Your task to perform on an android device: Search for sushi restaurants on Maps Image 0: 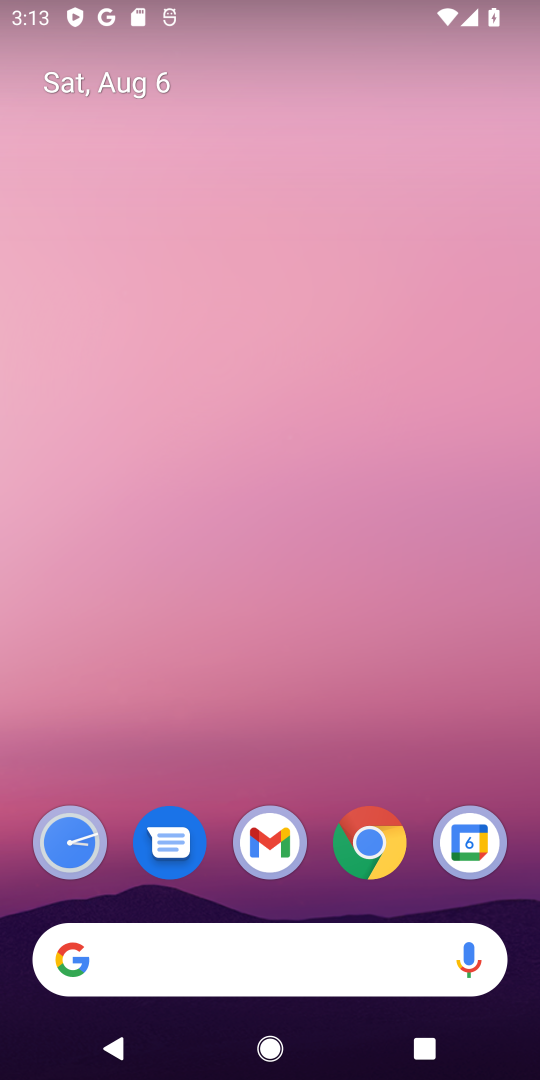
Step 0: drag from (516, 1032) to (449, 297)
Your task to perform on an android device: Search for sushi restaurants on Maps Image 1: 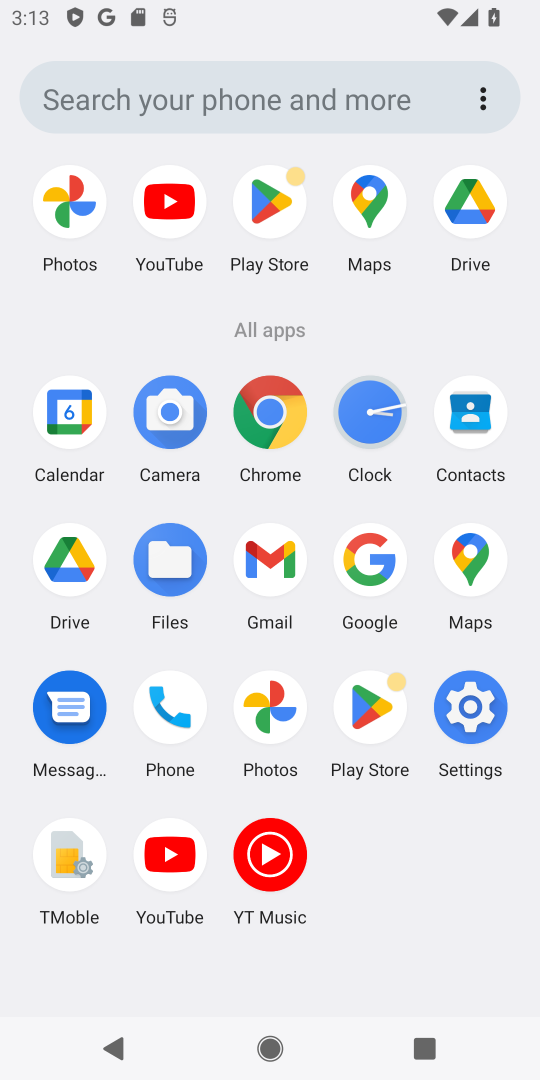
Step 1: click (367, 219)
Your task to perform on an android device: Search for sushi restaurants on Maps Image 2: 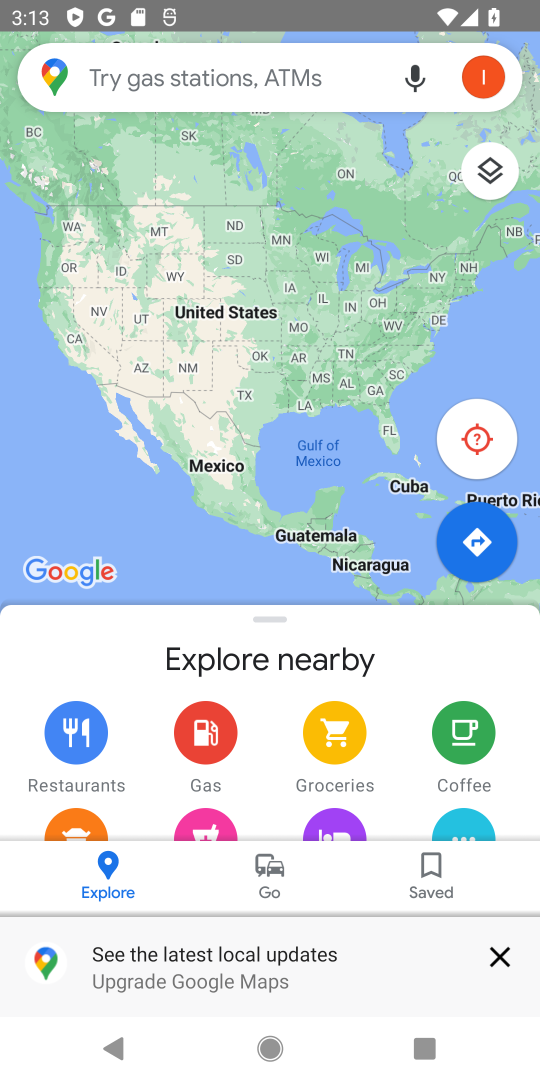
Step 2: click (225, 71)
Your task to perform on an android device: Search for sushi restaurants on Maps Image 3: 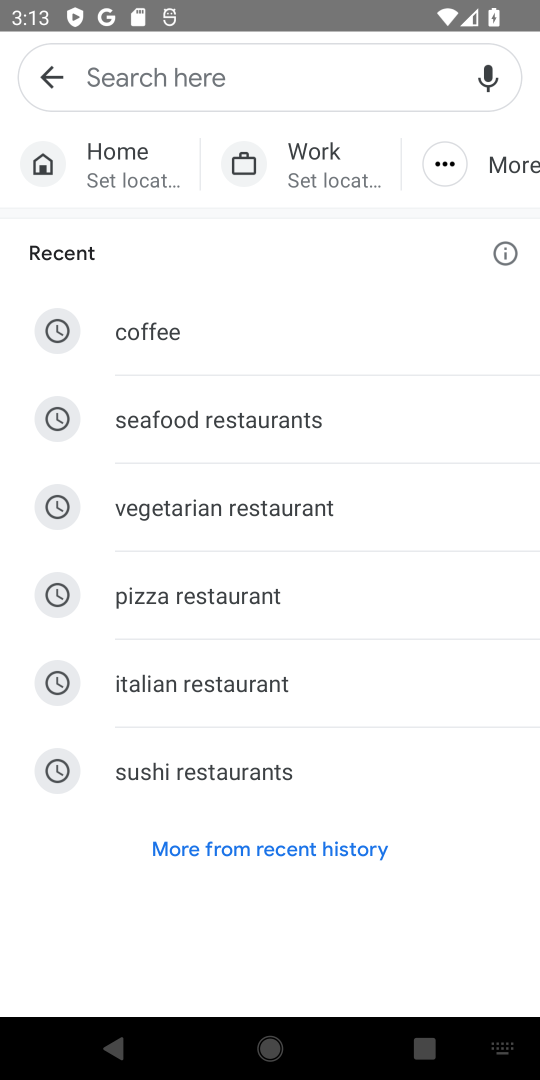
Step 3: type "sushi restaurants"
Your task to perform on an android device: Search for sushi restaurants on Maps Image 4: 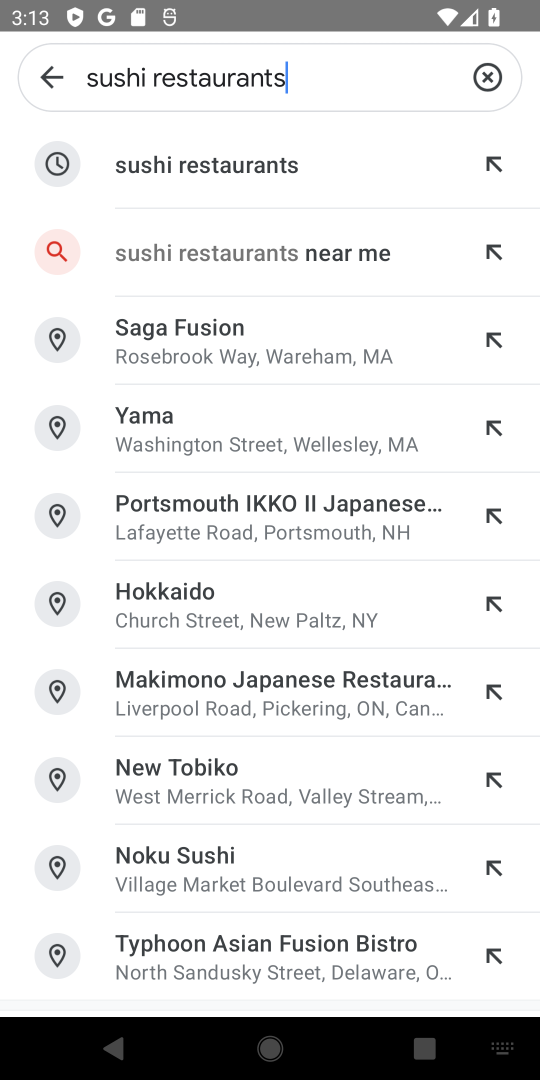
Step 4: click (252, 165)
Your task to perform on an android device: Search for sushi restaurants on Maps Image 5: 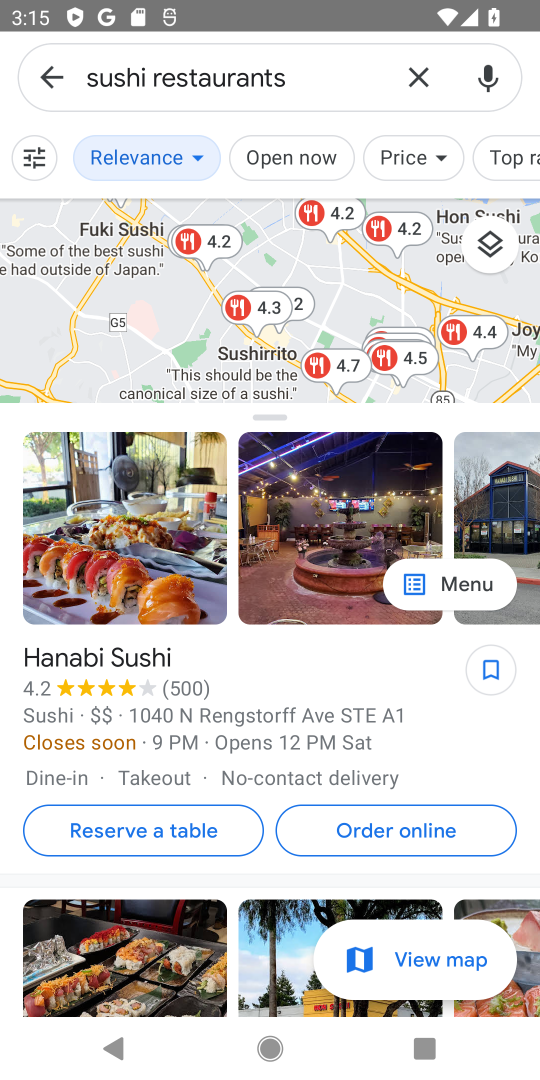
Step 5: task complete